Your task to perform on an android device: stop showing notifications on the lock screen Image 0: 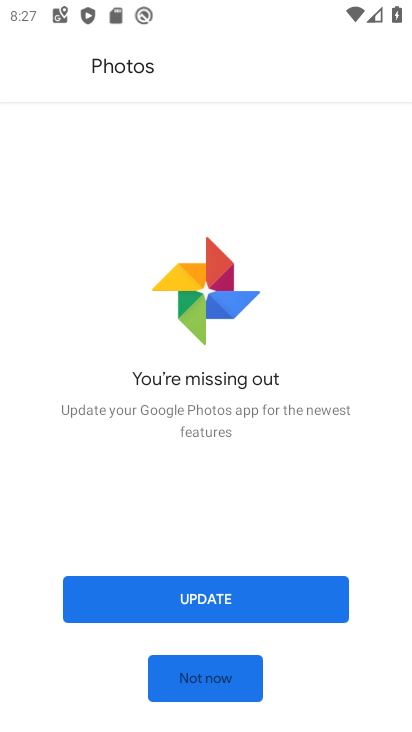
Step 0: press home button
Your task to perform on an android device: stop showing notifications on the lock screen Image 1: 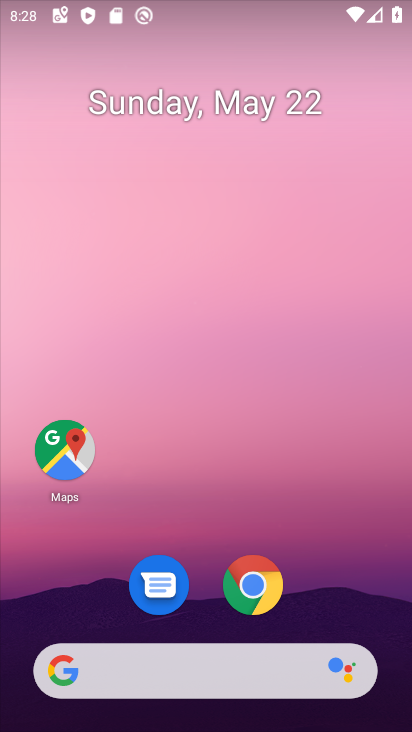
Step 1: drag from (247, 482) to (320, 46)
Your task to perform on an android device: stop showing notifications on the lock screen Image 2: 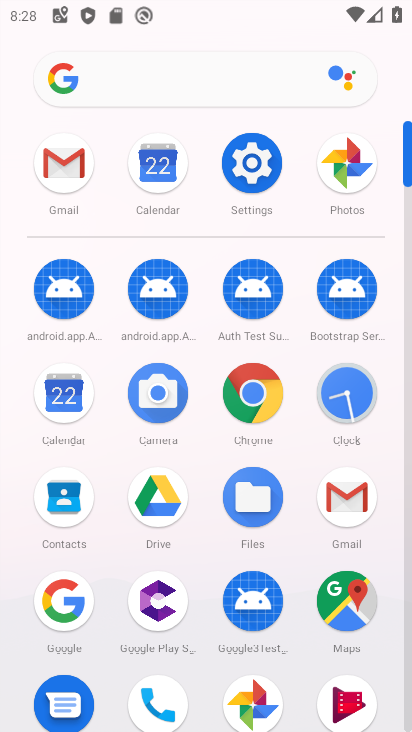
Step 2: click (264, 177)
Your task to perform on an android device: stop showing notifications on the lock screen Image 3: 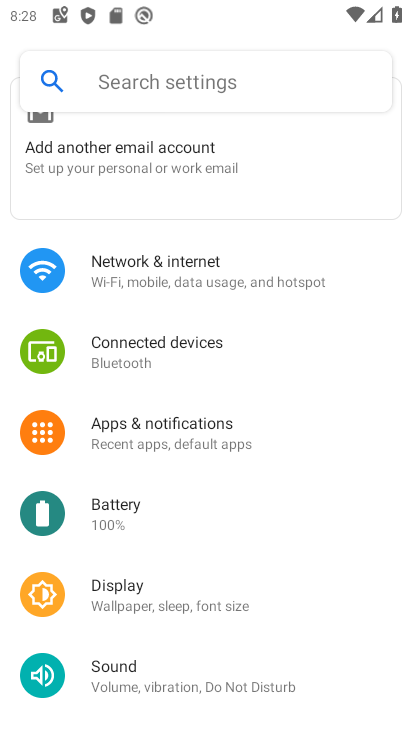
Step 3: click (197, 420)
Your task to perform on an android device: stop showing notifications on the lock screen Image 4: 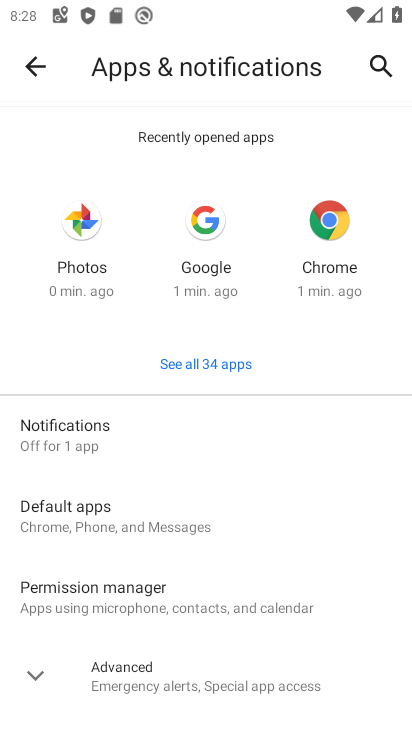
Step 4: click (151, 450)
Your task to perform on an android device: stop showing notifications on the lock screen Image 5: 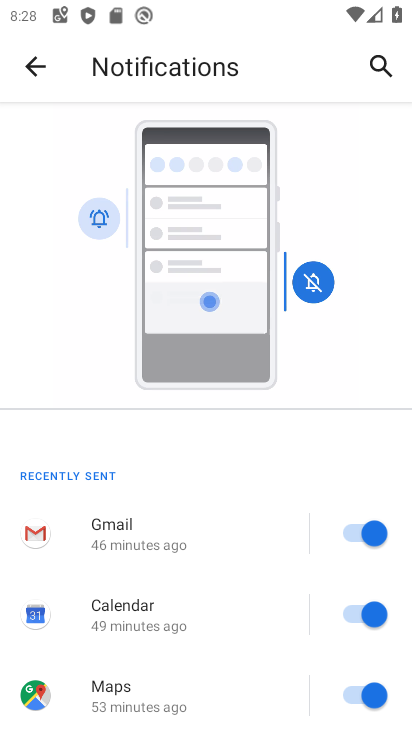
Step 5: drag from (205, 615) to (284, 156)
Your task to perform on an android device: stop showing notifications on the lock screen Image 6: 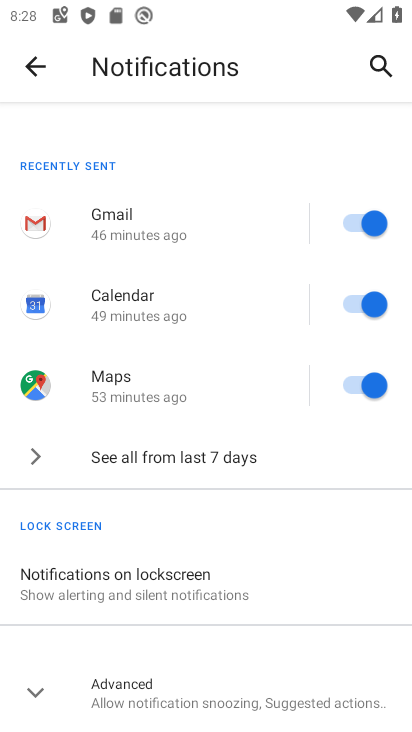
Step 6: click (108, 571)
Your task to perform on an android device: stop showing notifications on the lock screen Image 7: 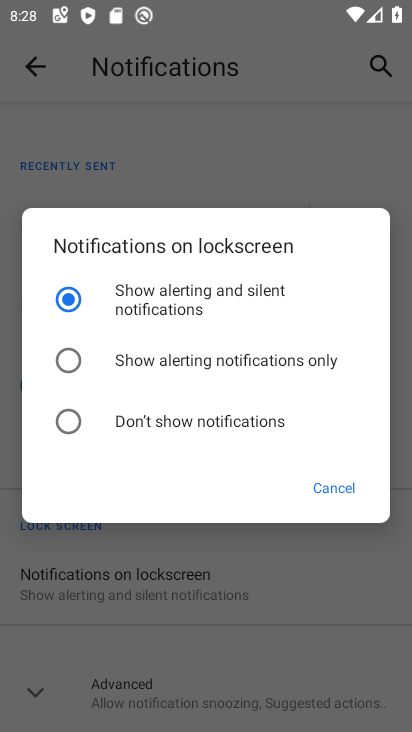
Step 7: click (63, 414)
Your task to perform on an android device: stop showing notifications on the lock screen Image 8: 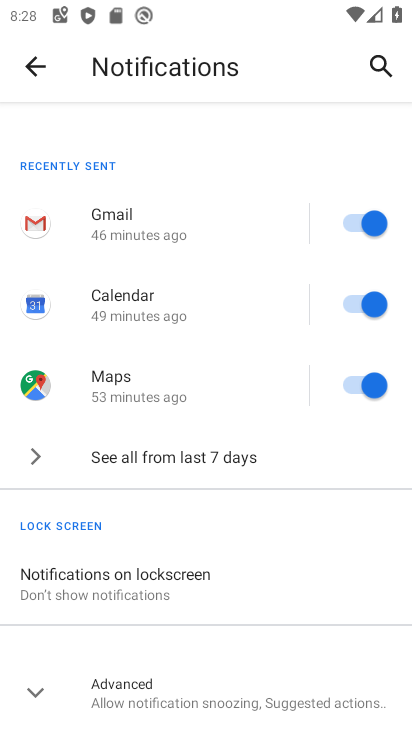
Step 8: task complete